Your task to perform on an android device: show emergency info Image 0: 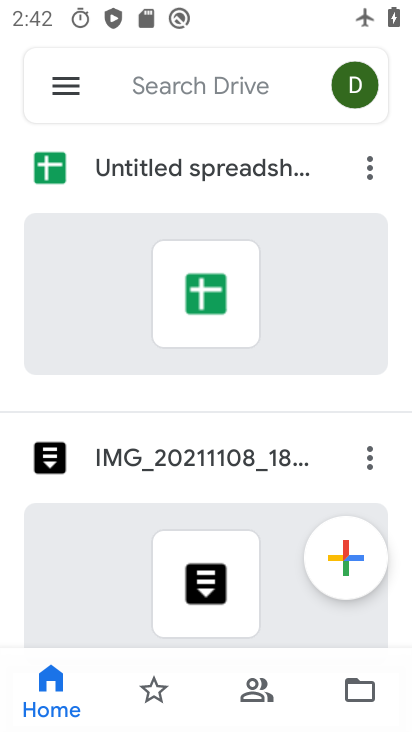
Step 0: press home button
Your task to perform on an android device: show emergency info Image 1: 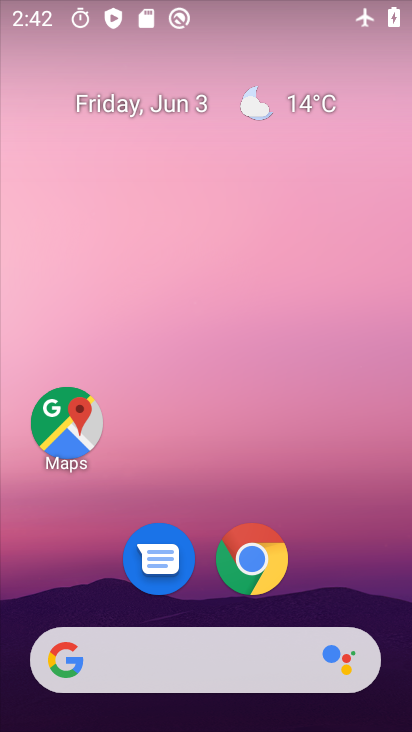
Step 1: drag from (211, 617) to (311, 11)
Your task to perform on an android device: show emergency info Image 2: 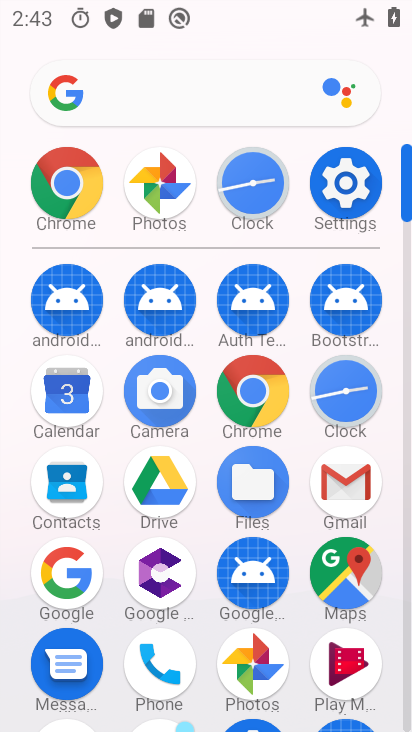
Step 2: click (360, 207)
Your task to perform on an android device: show emergency info Image 3: 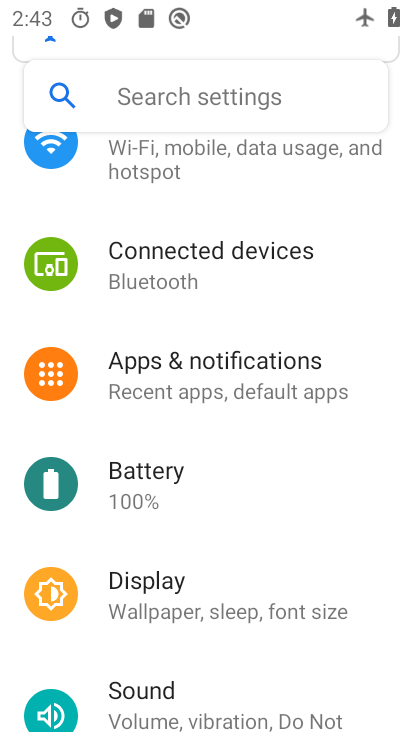
Step 3: drag from (215, 548) to (253, 27)
Your task to perform on an android device: show emergency info Image 4: 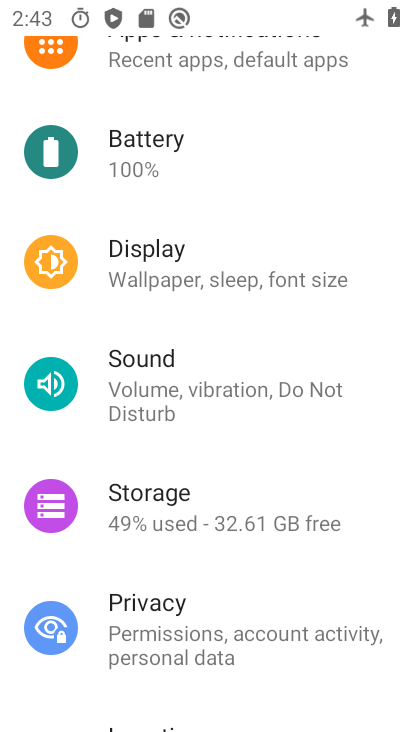
Step 4: drag from (321, 604) to (291, 9)
Your task to perform on an android device: show emergency info Image 5: 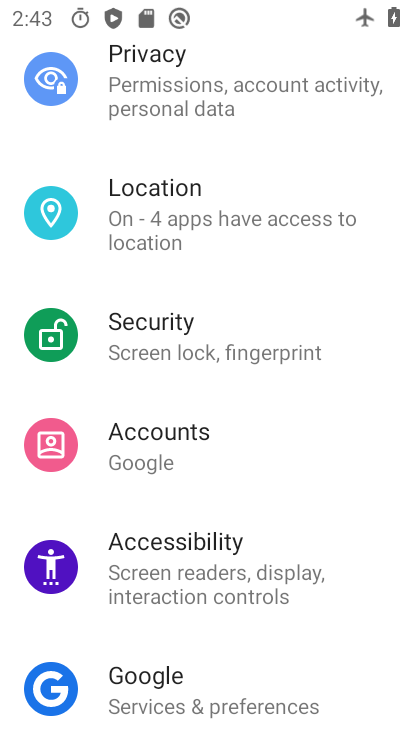
Step 5: drag from (288, 672) to (279, 86)
Your task to perform on an android device: show emergency info Image 6: 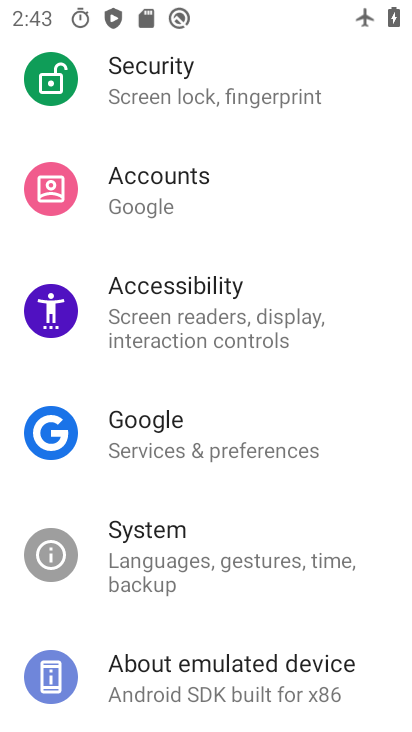
Step 6: click (210, 651)
Your task to perform on an android device: show emergency info Image 7: 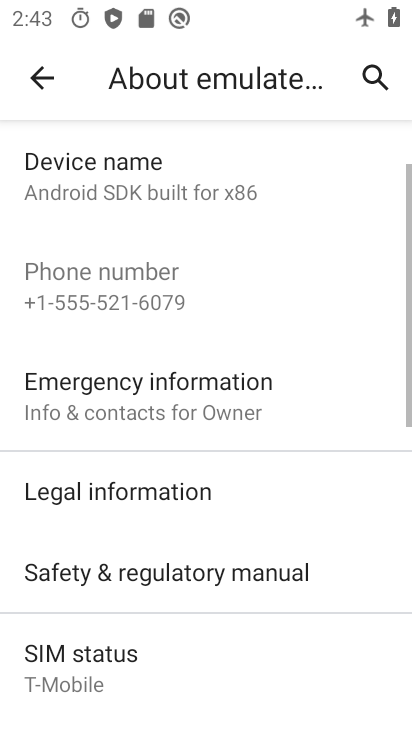
Step 7: click (212, 411)
Your task to perform on an android device: show emergency info Image 8: 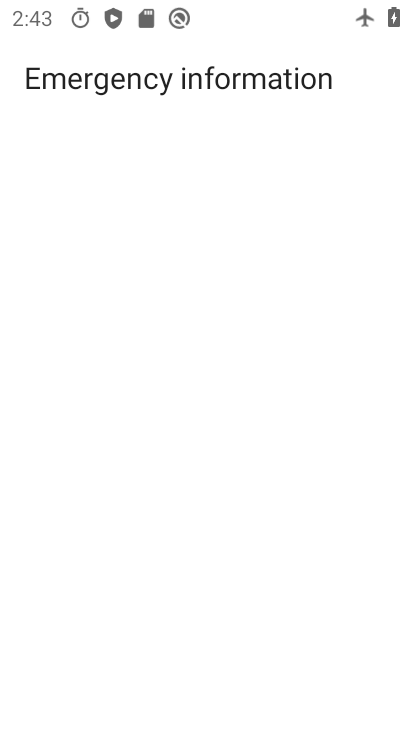
Step 8: task complete